Your task to perform on an android device: change the clock style Image 0: 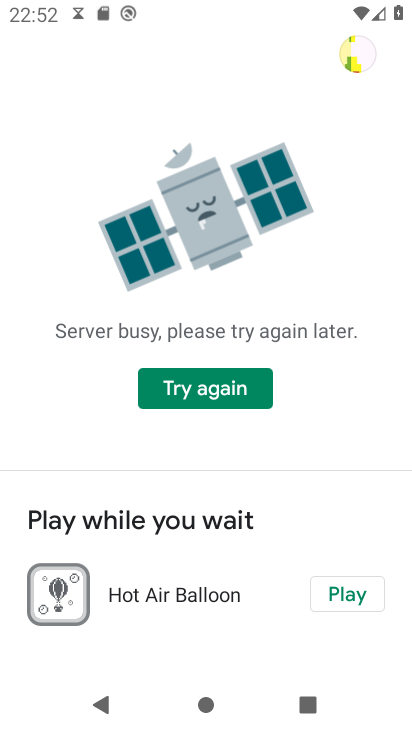
Step 0: press home button
Your task to perform on an android device: change the clock style Image 1: 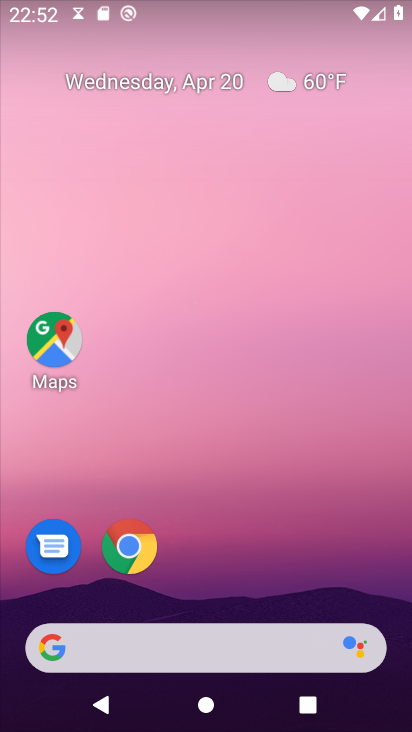
Step 1: drag from (232, 577) to (198, 38)
Your task to perform on an android device: change the clock style Image 2: 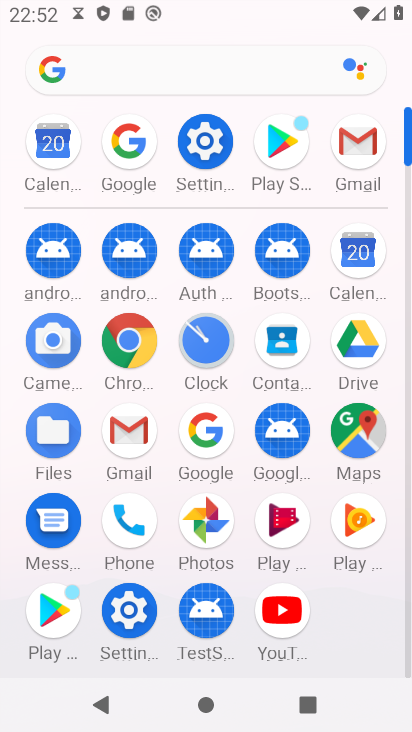
Step 2: click (203, 347)
Your task to perform on an android device: change the clock style Image 3: 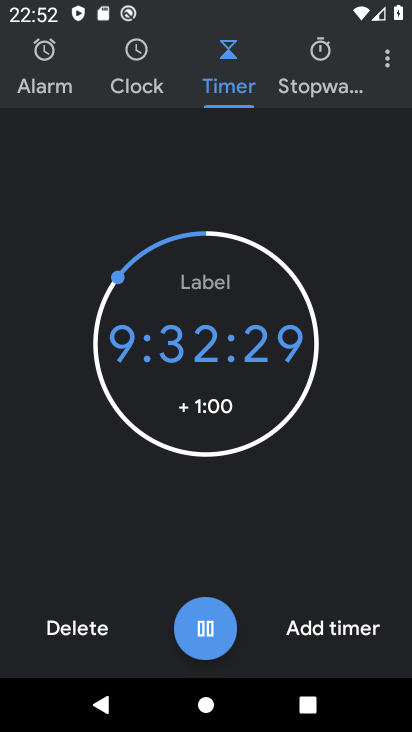
Step 3: click (384, 52)
Your task to perform on an android device: change the clock style Image 4: 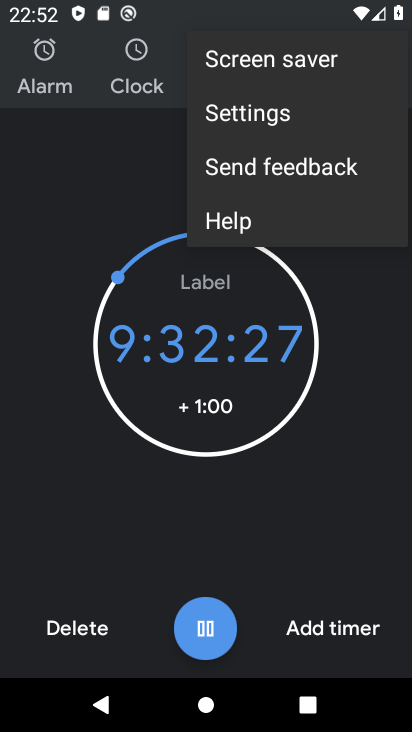
Step 4: click (277, 108)
Your task to perform on an android device: change the clock style Image 5: 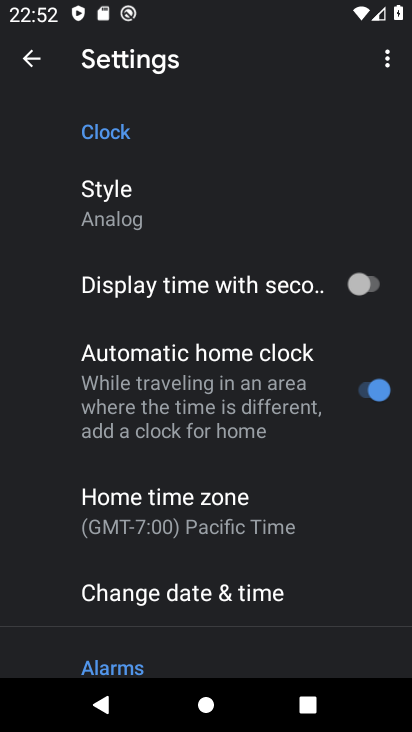
Step 5: click (148, 209)
Your task to perform on an android device: change the clock style Image 6: 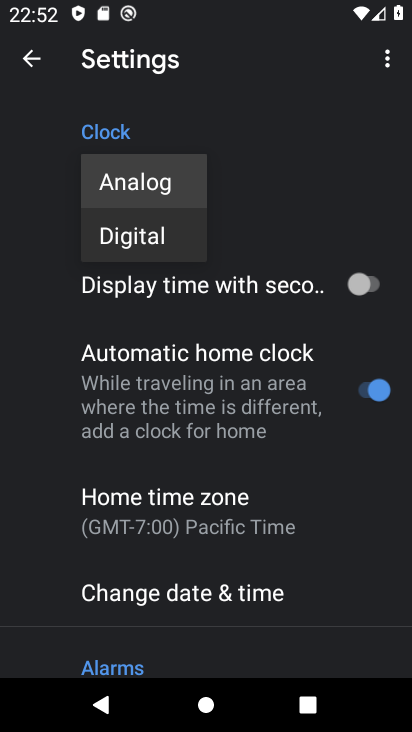
Step 6: click (172, 231)
Your task to perform on an android device: change the clock style Image 7: 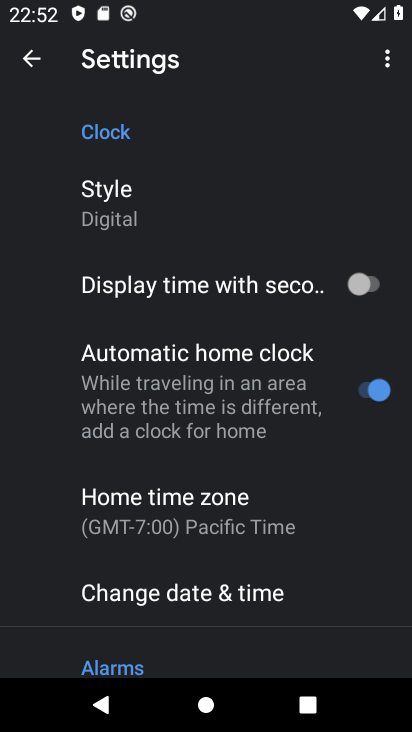
Step 7: task complete